Your task to perform on an android device: toggle airplane mode Image 0: 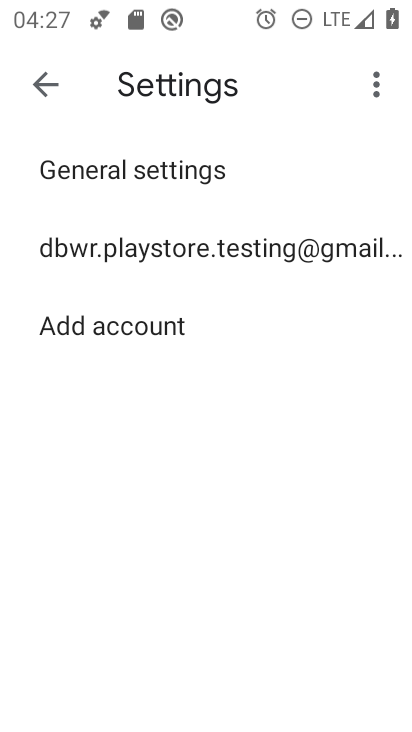
Step 0: press home button
Your task to perform on an android device: toggle airplane mode Image 1: 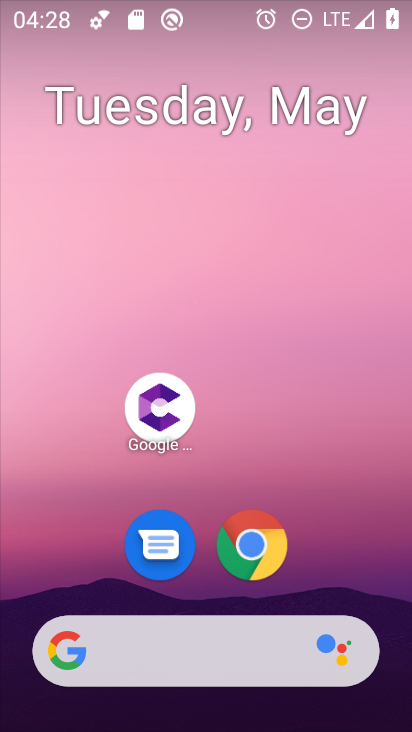
Step 1: drag from (364, 556) to (368, 174)
Your task to perform on an android device: toggle airplane mode Image 2: 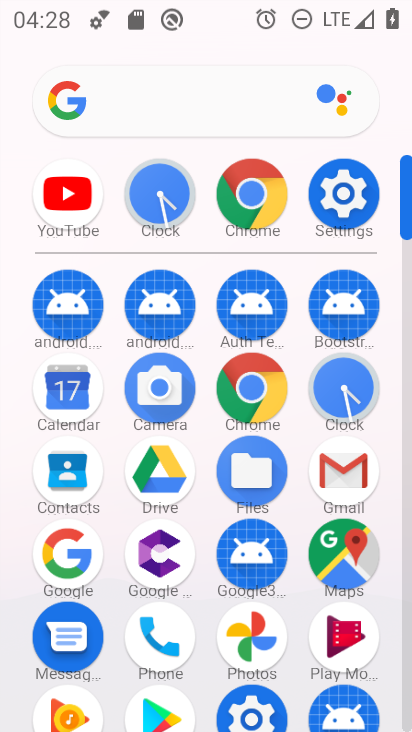
Step 2: click (362, 214)
Your task to perform on an android device: toggle airplane mode Image 3: 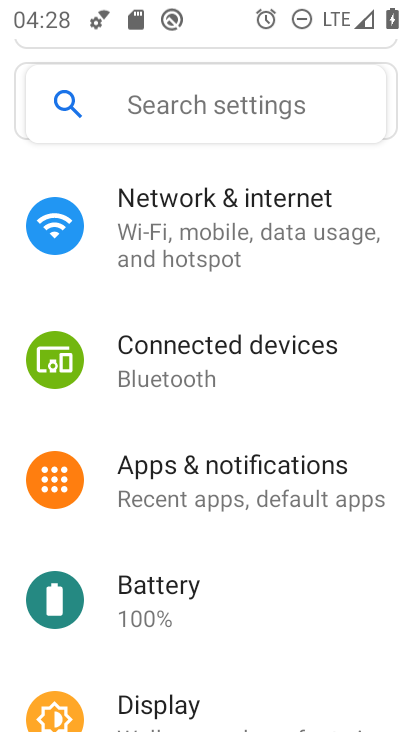
Step 3: drag from (358, 629) to (362, 562)
Your task to perform on an android device: toggle airplane mode Image 4: 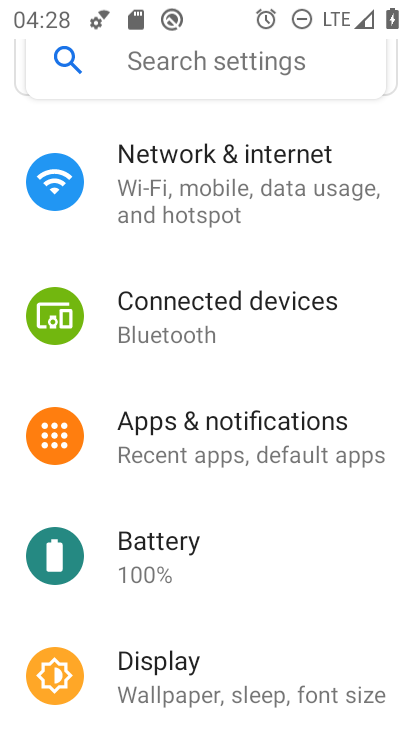
Step 4: click (313, 189)
Your task to perform on an android device: toggle airplane mode Image 5: 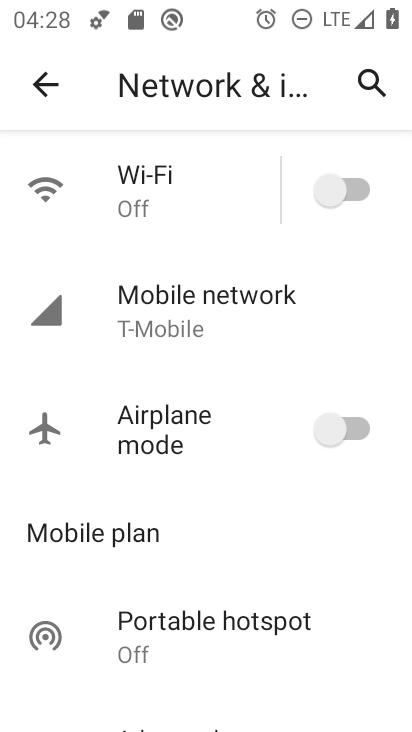
Step 5: click (332, 433)
Your task to perform on an android device: toggle airplane mode Image 6: 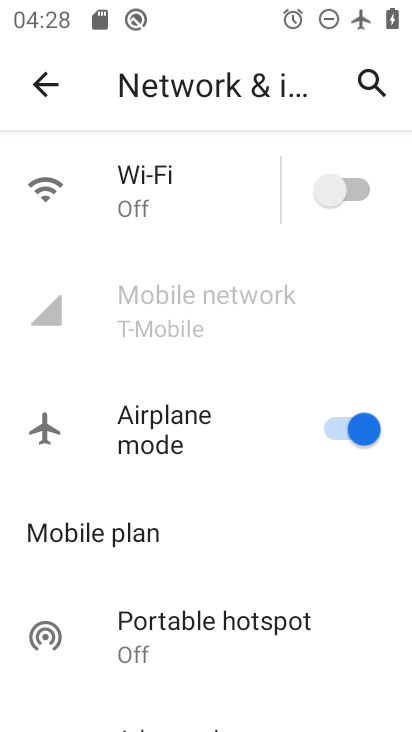
Step 6: task complete